Your task to perform on an android device: Do I have any events this weekend? Image 0: 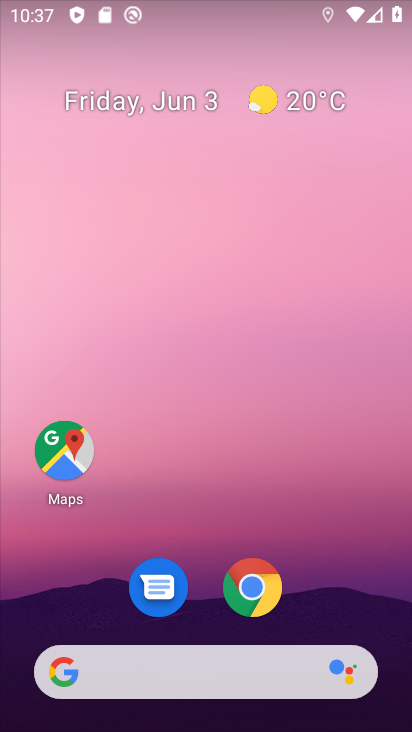
Step 0: drag from (366, 577) to (24, 6)
Your task to perform on an android device: Do I have any events this weekend? Image 1: 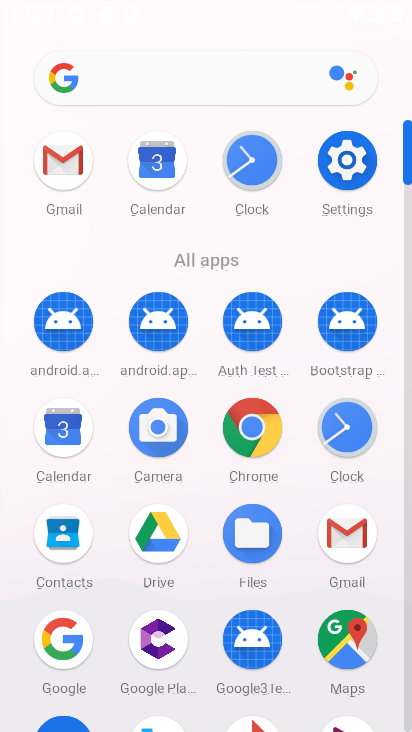
Step 1: click (62, 426)
Your task to perform on an android device: Do I have any events this weekend? Image 2: 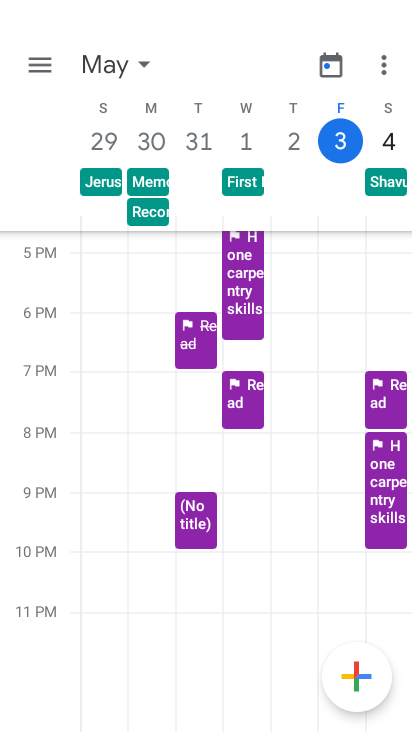
Step 2: task complete